Your task to perform on an android device: Open Google Image 0: 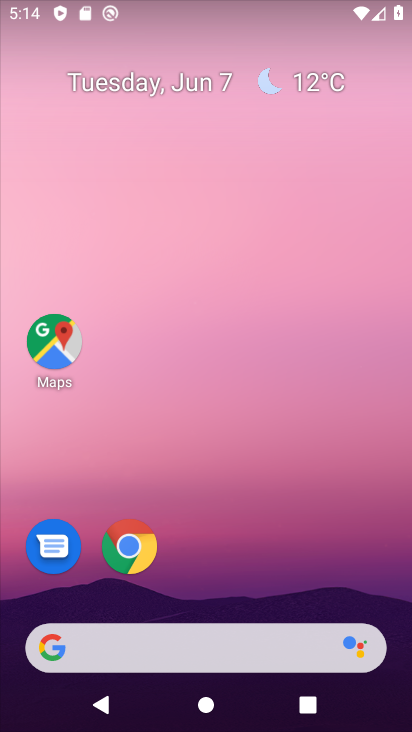
Step 0: drag from (196, 584) to (240, 38)
Your task to perform on an android device: Open Google Image 1: 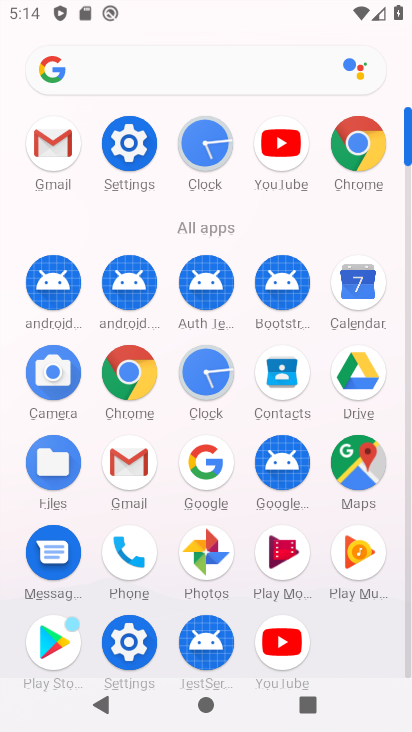
Step 1: click (199, 458)
Your task to perform on an android device: Open Google Image 2: 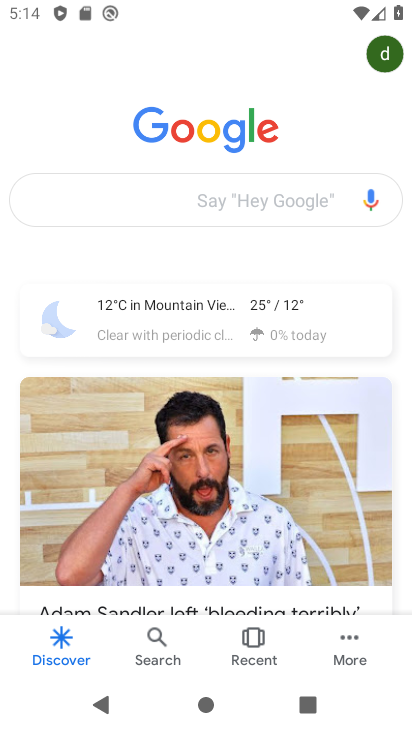
Step 2: task complete